Your task to perform on an android device: Open the map Image 0: 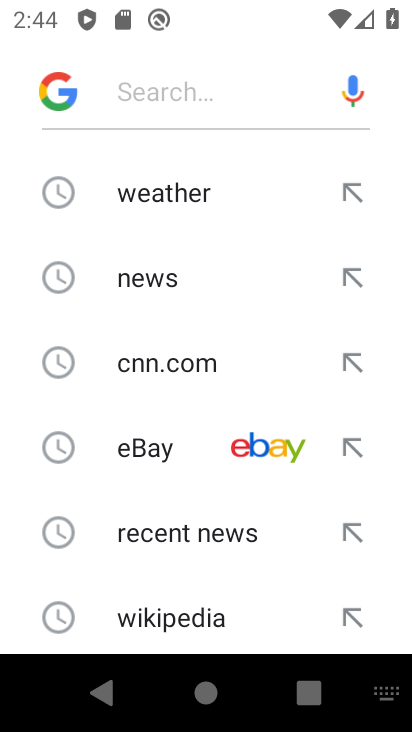
Step 0: press home button
Your task to perform on an android device: Open the map Image 1: 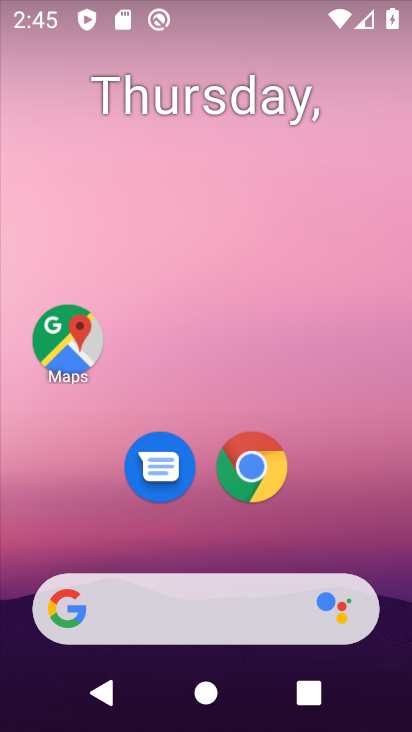
Step 1: click (82, 365)
Your task to perform on an android device: Open the map Image 2: 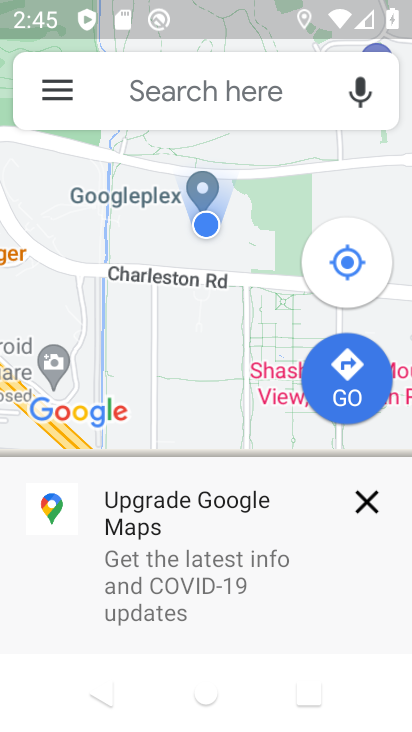
Step 2: task complete